Your task to perform on an android device: Toggle the flashlight Image 0: 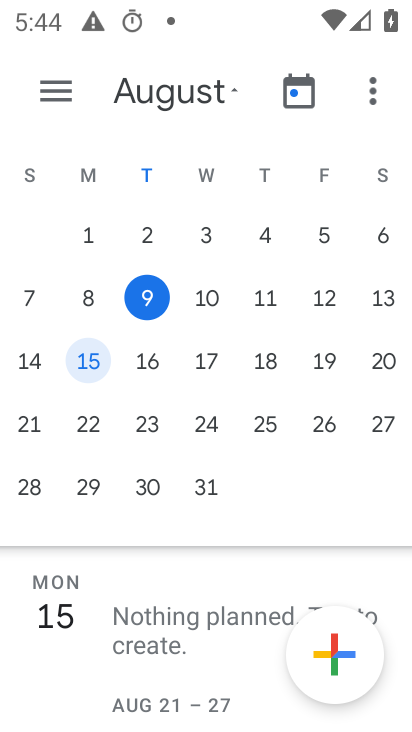
Step 0: press home button
Your task to perform on an android device: Toggle the flashlight Image 1: 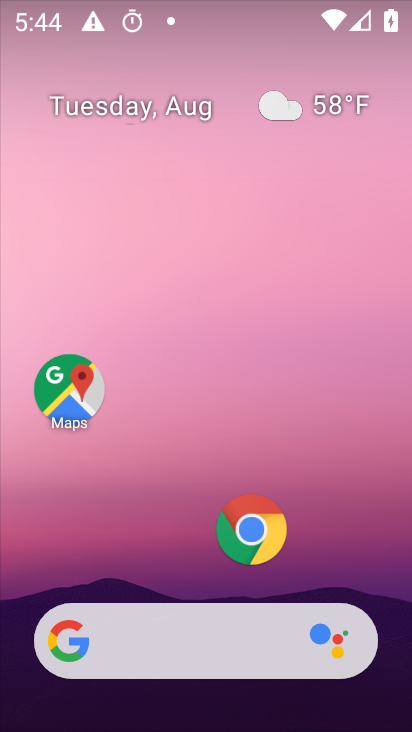
Step 1: task complete